Your task to perform on an android device: open app "Skype" Image 0: 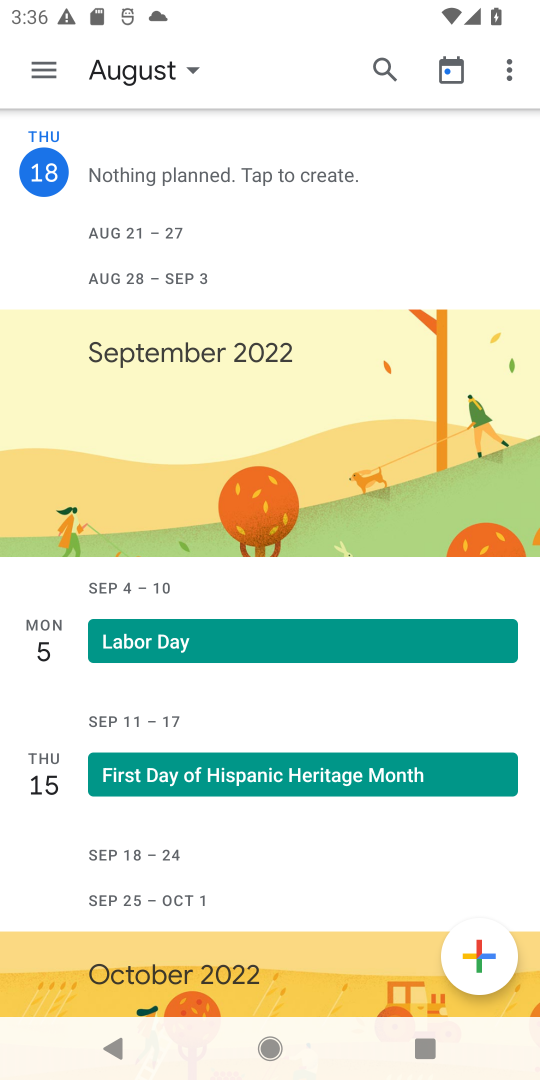
Step 0: press home button
Your task to perform on an android device: open app "Skype" Image 1: 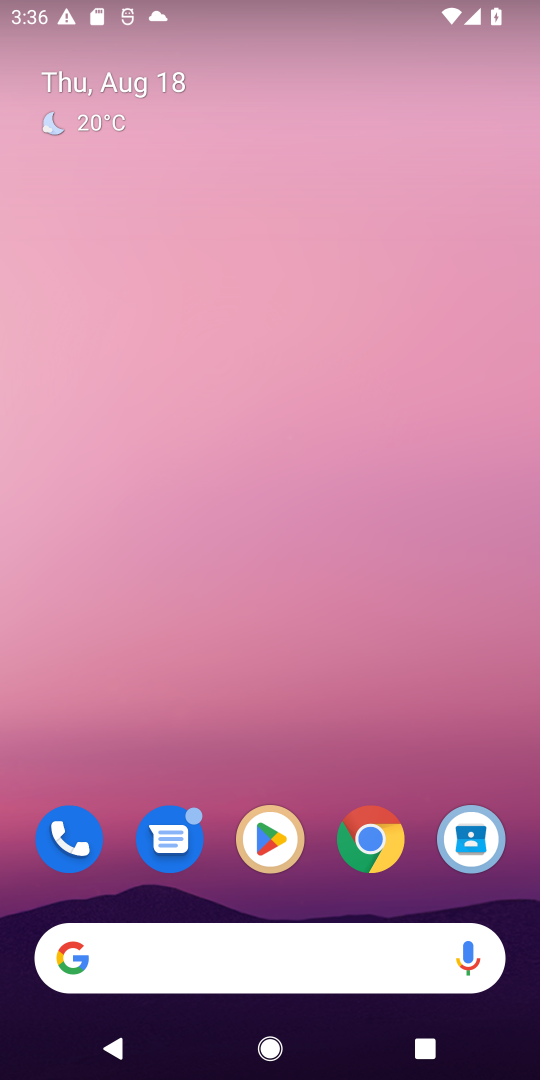
Step 1: drag from (260, 832) to (211, 832)
Your task to perform on an android device: open app "Skype" Image 2: 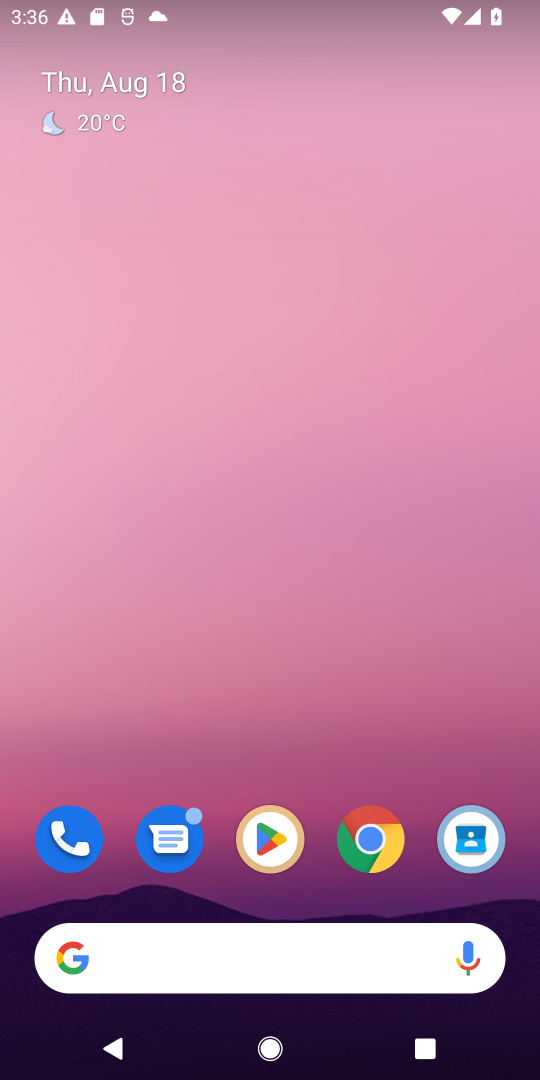
Step 2: click (273, 851)
Your task to perform on an android device: open app "Skype" Image 3: 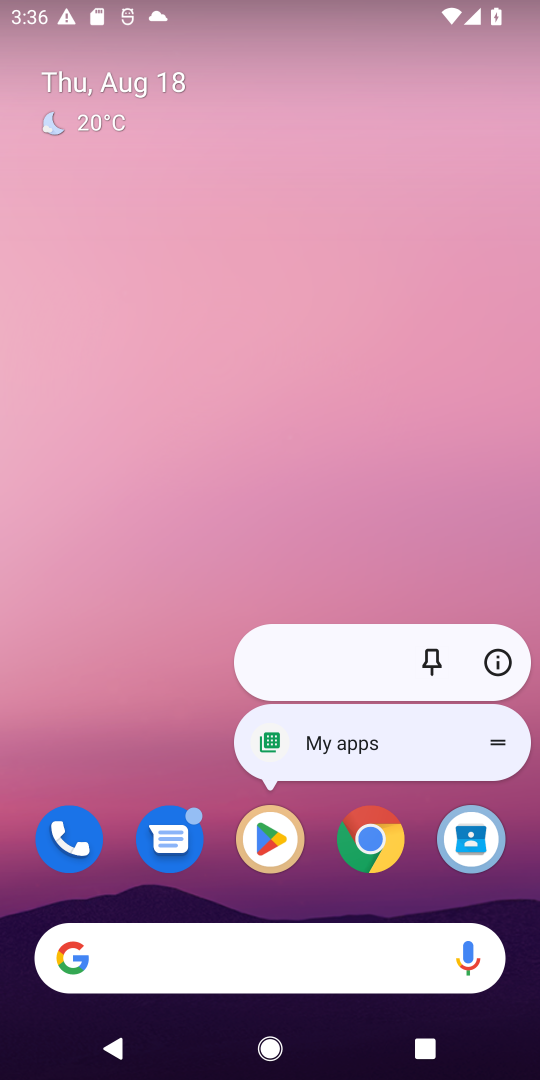
Step 3: click (239, 801)
Your task to perform on an android device: open app "Skype" Image 4: 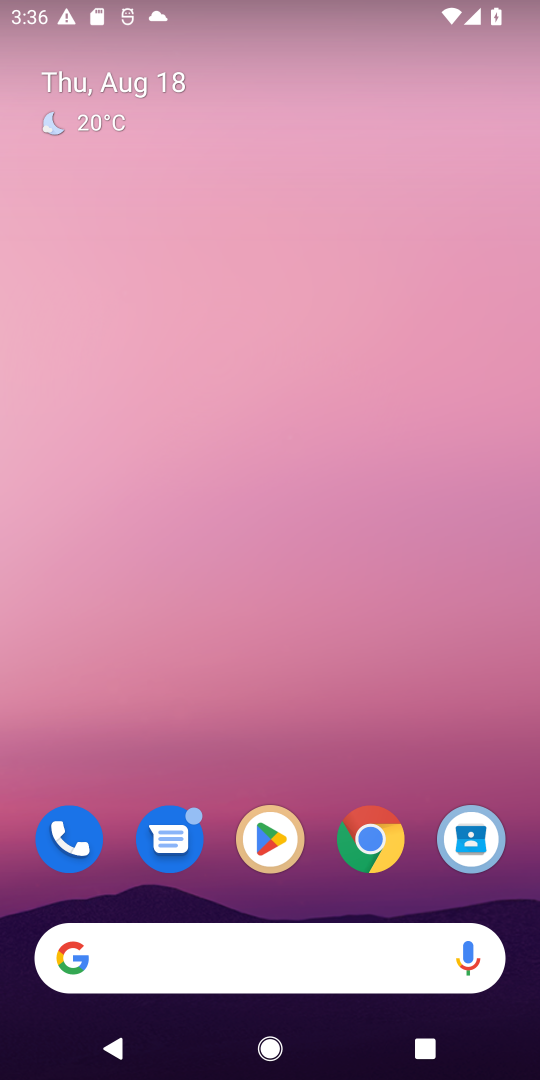
Step 4: click (255, 843)
Your task to perform on an android device: open app "Skype" Image 5: 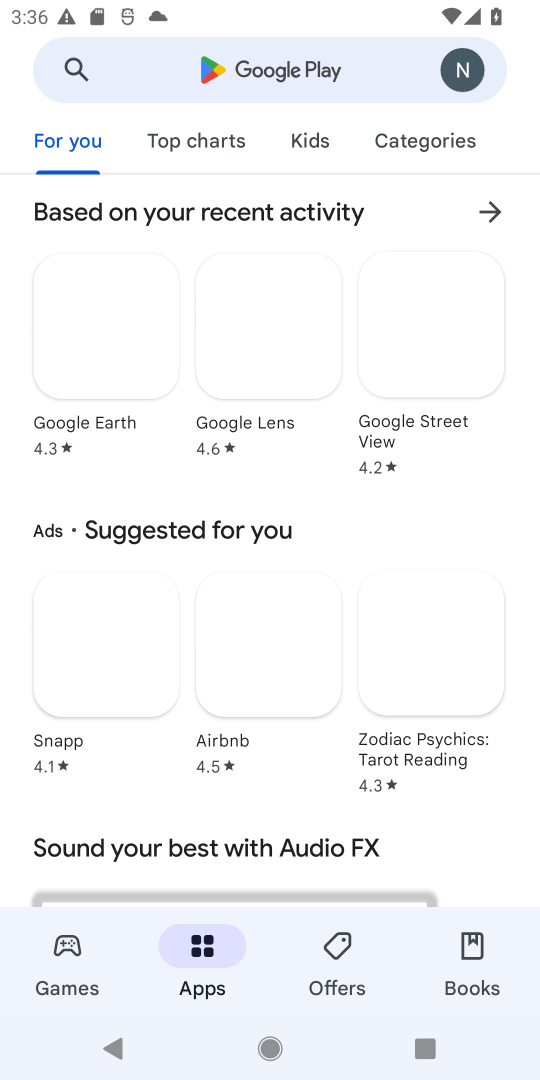
Step 5: click (266, 54)
Your task to perform on an android device: open app "Skype" Image 6: 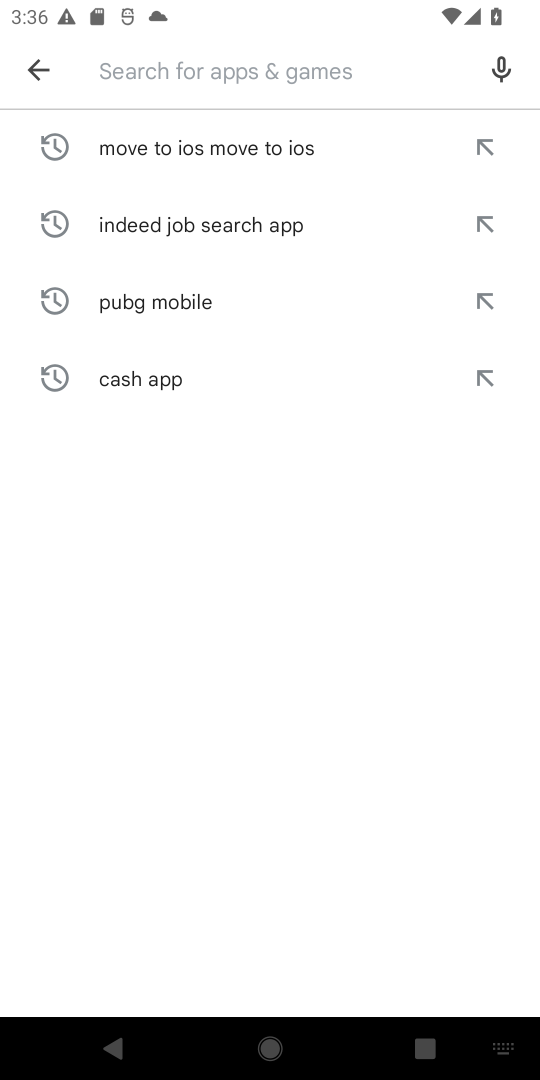
Step 6: type "Skype"
Your task to perform on an android device: open app "Skype" Image 7: 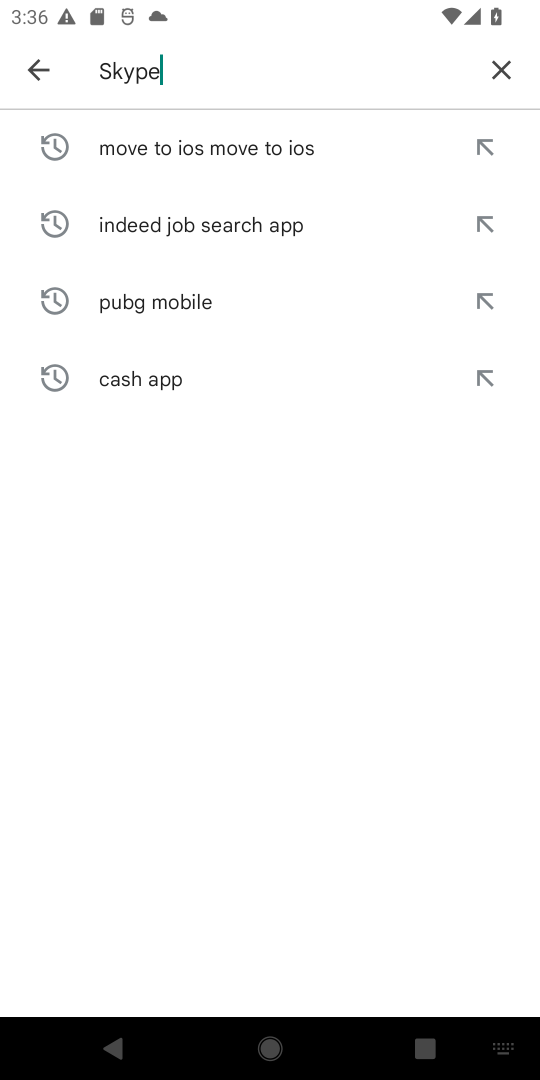
Step 7: type ""
Your task to perform on an android device: open app "Skype" Image 8: 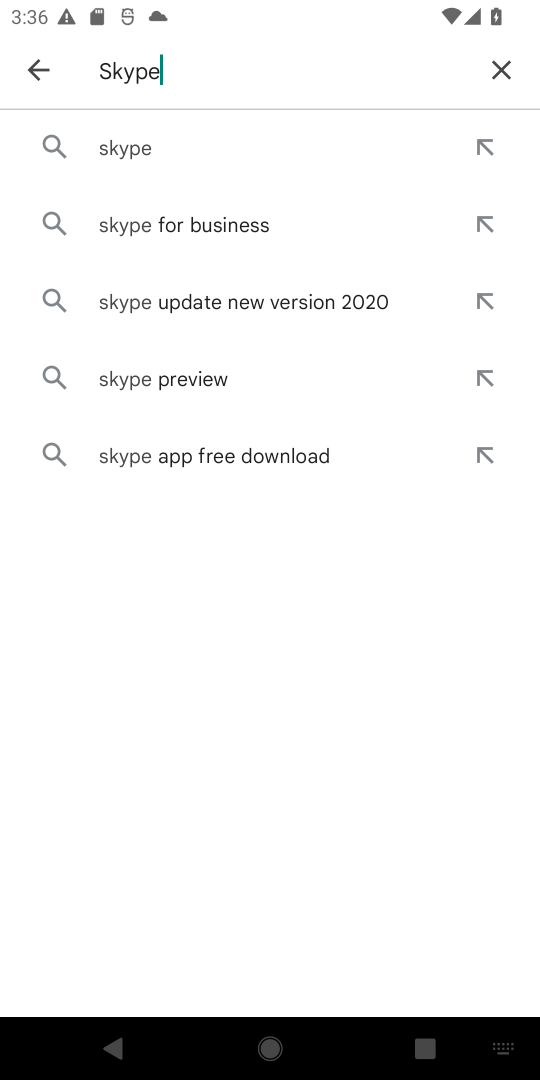
Step 8: click (139, 136)
Your task to perform on an android device: open app "Skype" Image 9: 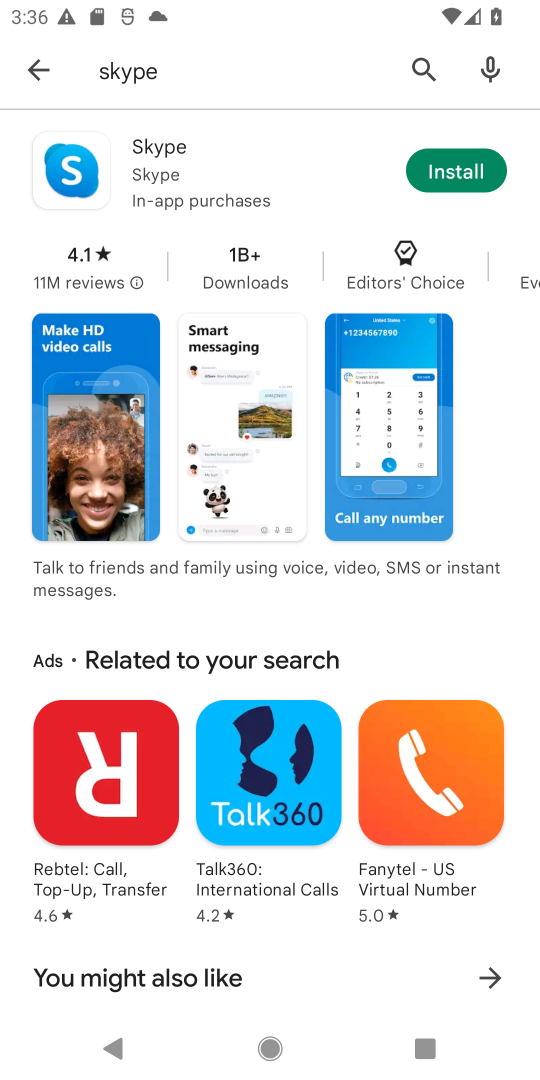
Step 9: task complete